Your task to perform on an android device: Go to battery settings Image 0: 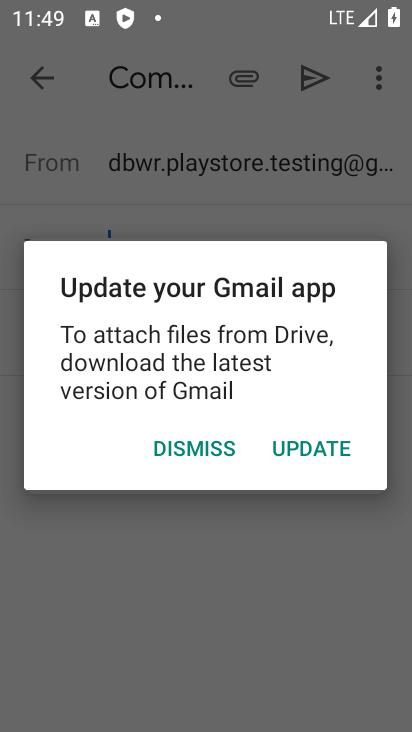
Step 0: click (264, 616)
Your task to perform on an android device: Go to battery settings Image 1: 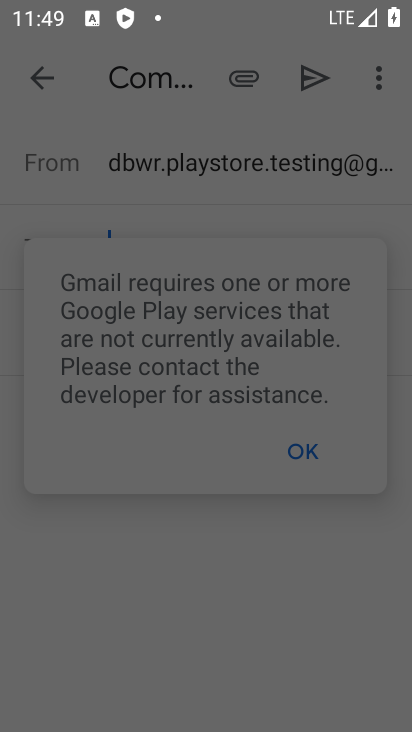
Step 1: press home button
Your task to perform on an android device: Go to battery settings Image 2: 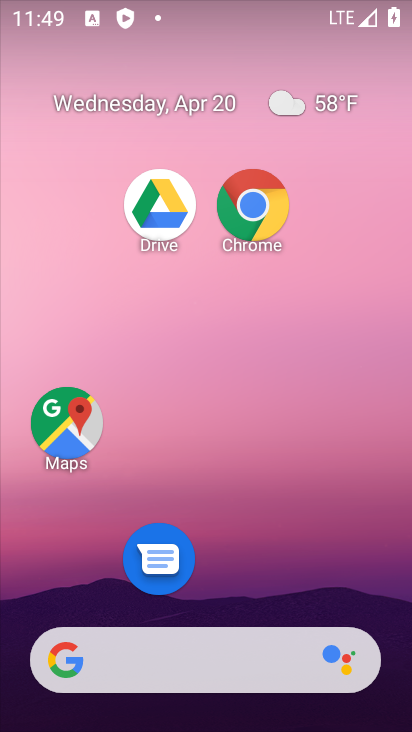
Step 2: drag from (195, 652) to (196, 90)
Your task to perform on an android device: Go to battery settings Image 3: 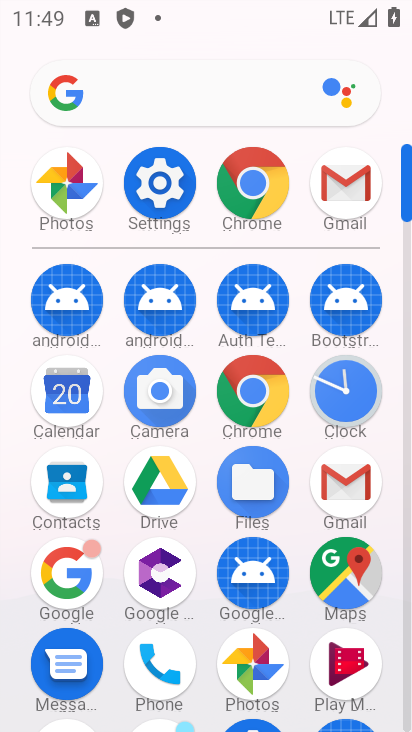
Step 3: drag from (213, 578) to (218, 204)
Your task to perform on an android device: Go to battery settings Image 4: 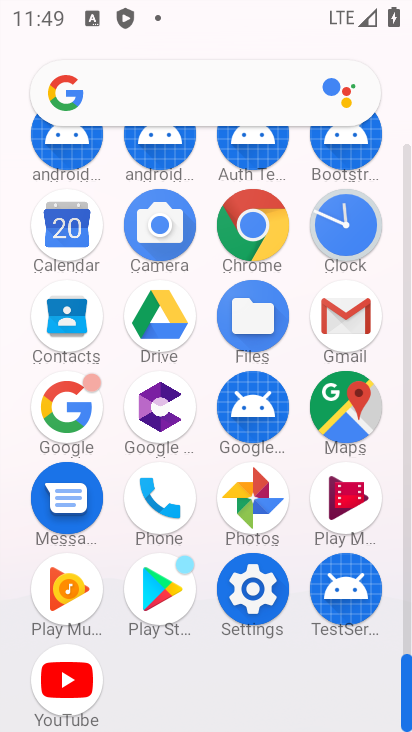
Step 4: click (238, 620)
Your task to perform on an android device: Go to battery settings Image 5: 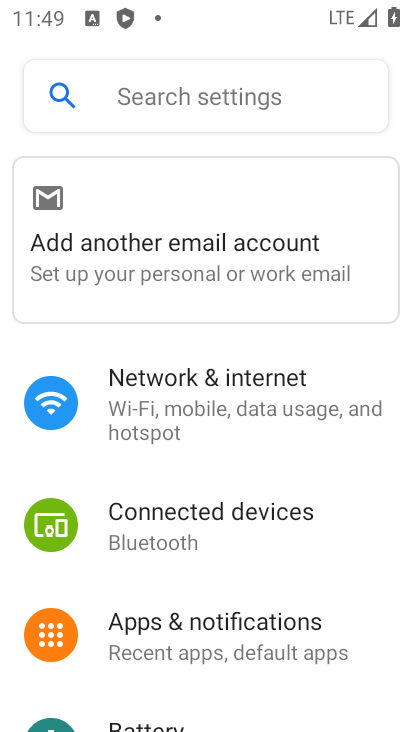
Step 5: drag from (276, 669) to (295, 132)
Your task to perform on an android device: Go to battery settings Image 6: 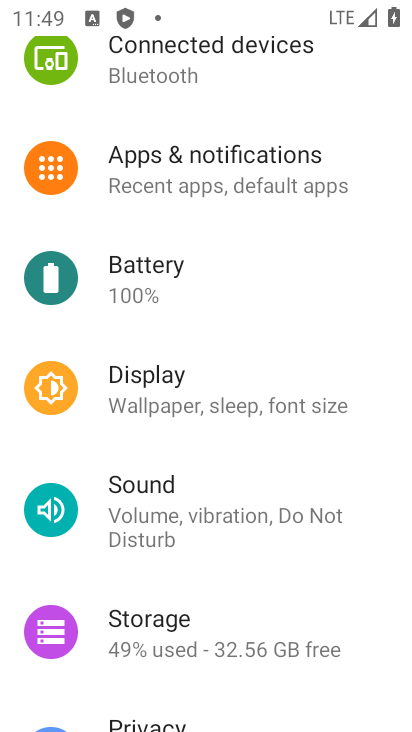
Step 6: click (259, 274)
Your task to perform on an android device: Go to battery settings Image 7: 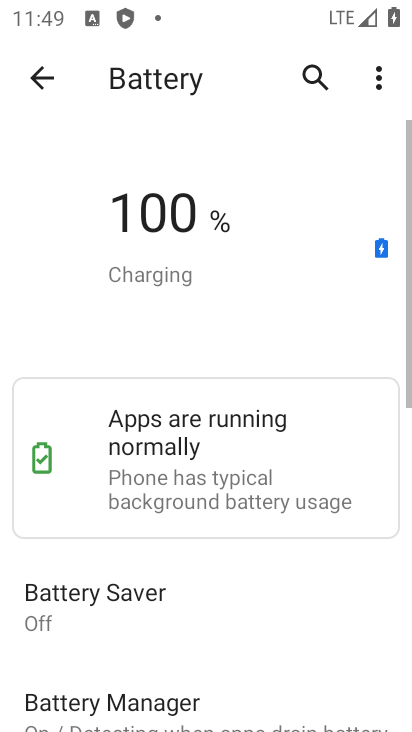
Step 7: task complete